Your task to perform on an android device: install app "Google Duo" Image 0: 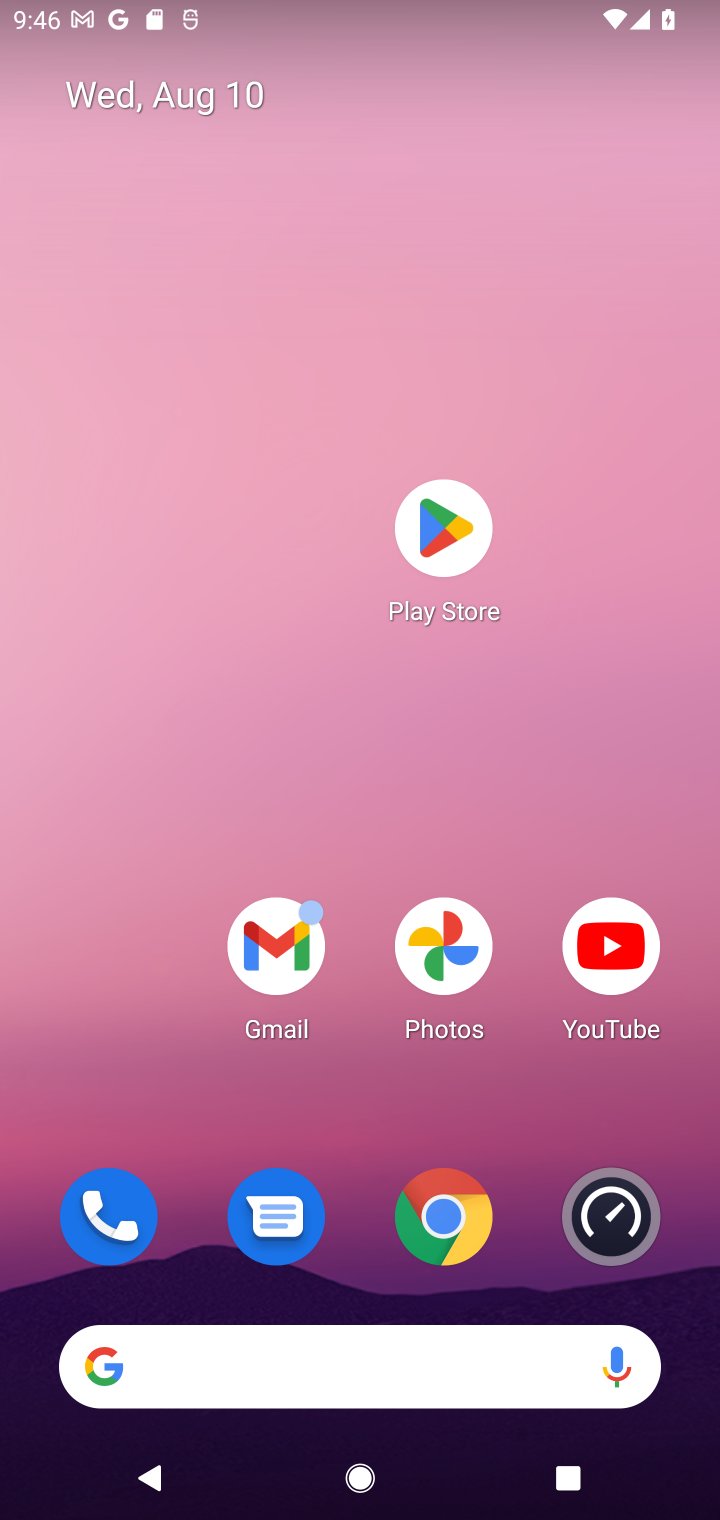
Step 0: click (438, 533)
Your task to perform on an android device: install app "Google Duo" Image 1: 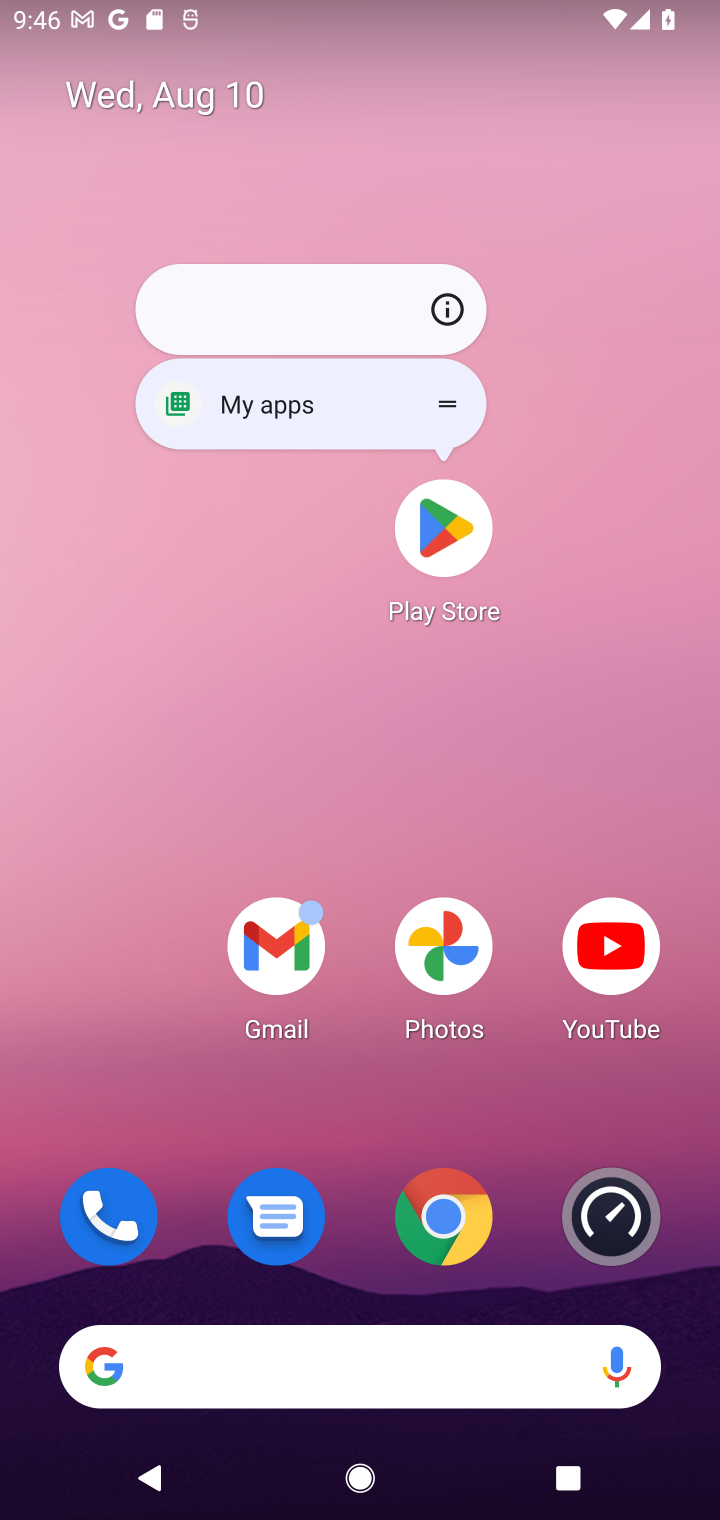
Step 1: click (453, 500)
Your task to perform on an android device: install app "Google Duo" Image 2: 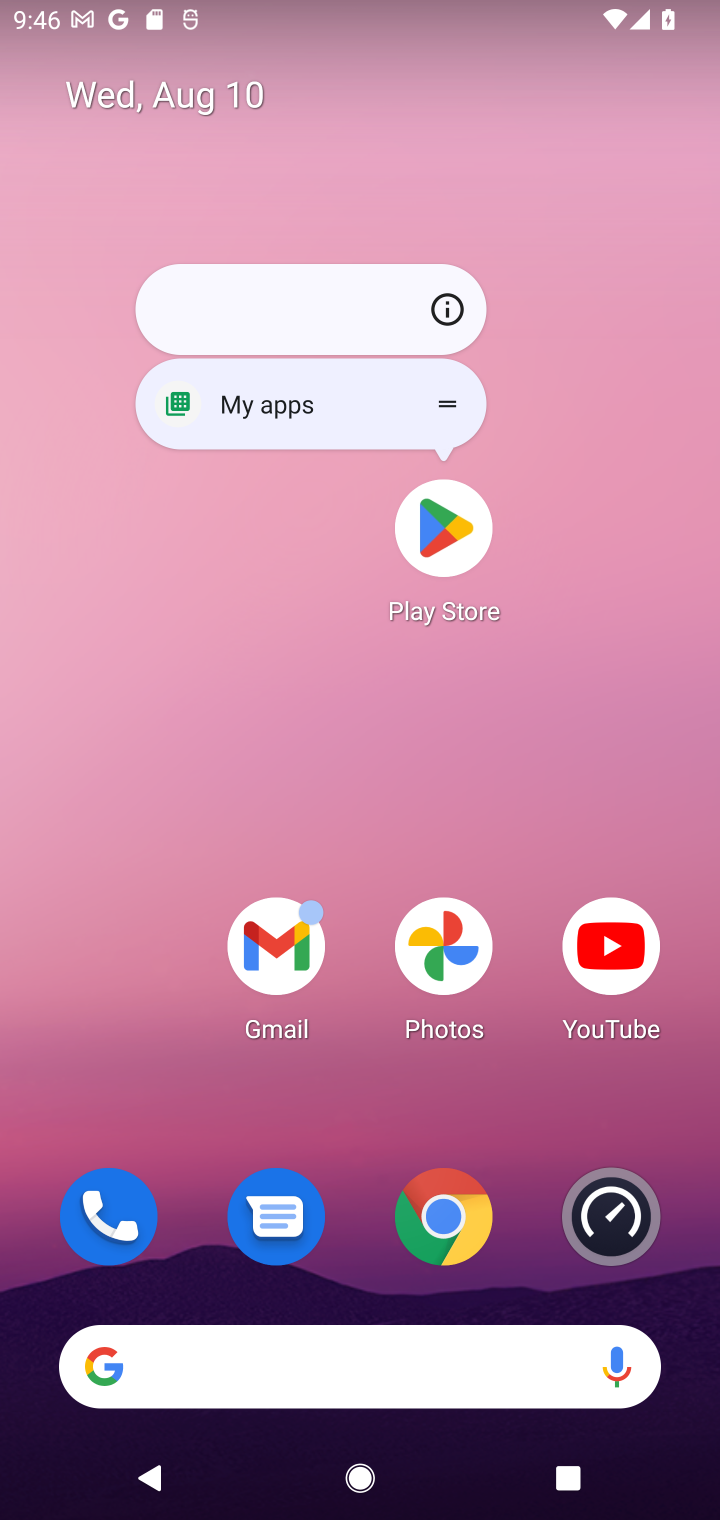
Step 2: click (453, 502)
Your task to perform on an android device: install app "Google Duo" Image 3: 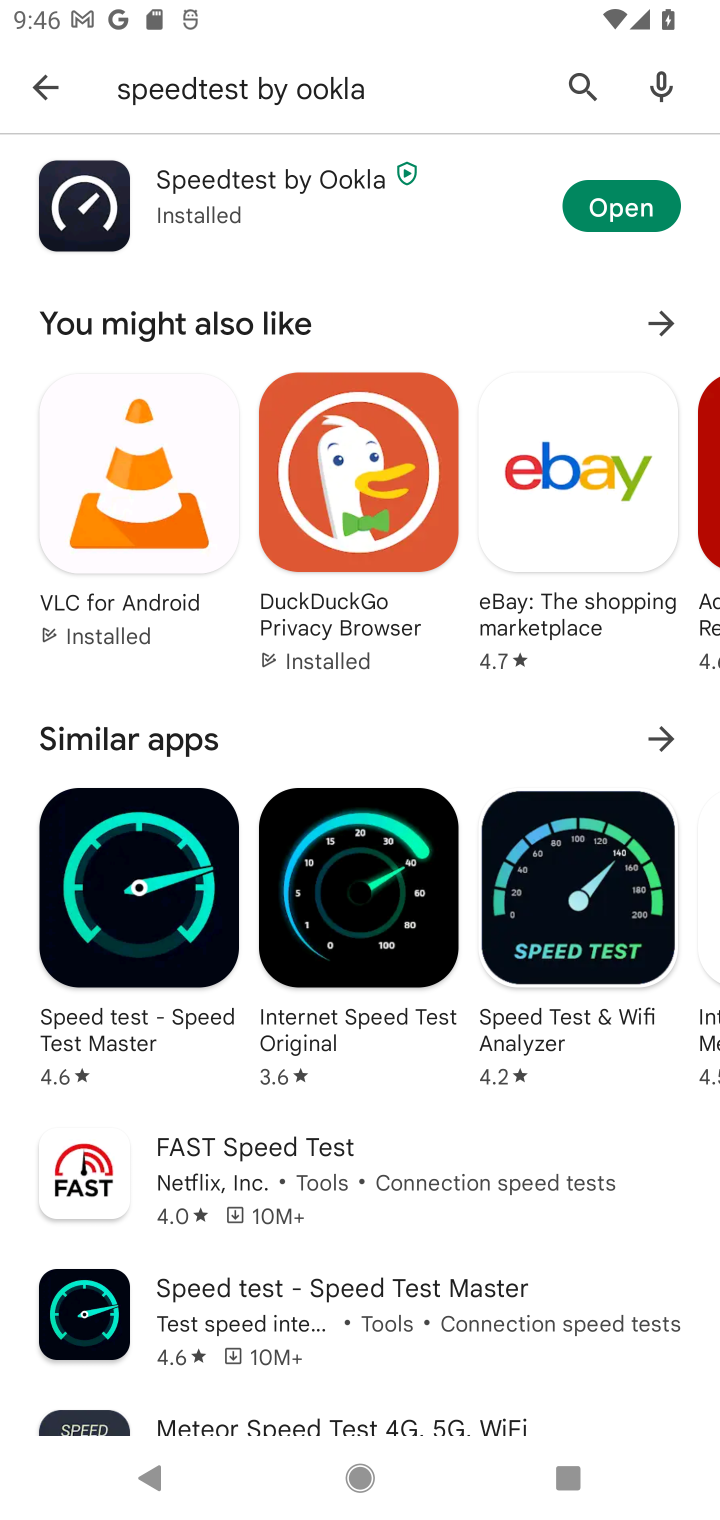
Step 3: click (576, 74)
Your task to perform on an android device: install app "Google Duo" Image 4: 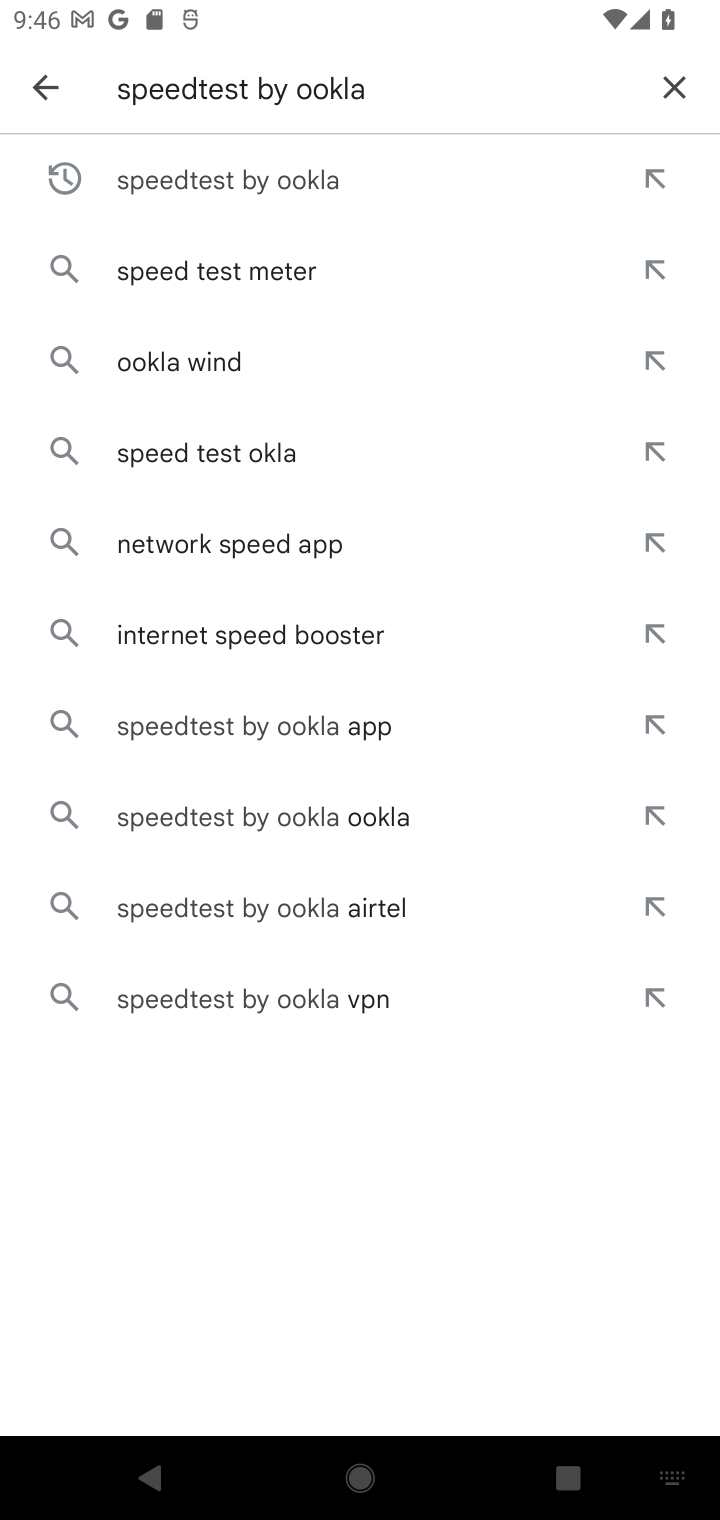
Step 4: click (669, 74)
Your task to perform on an android device: install app "Google Duo" Image 5: 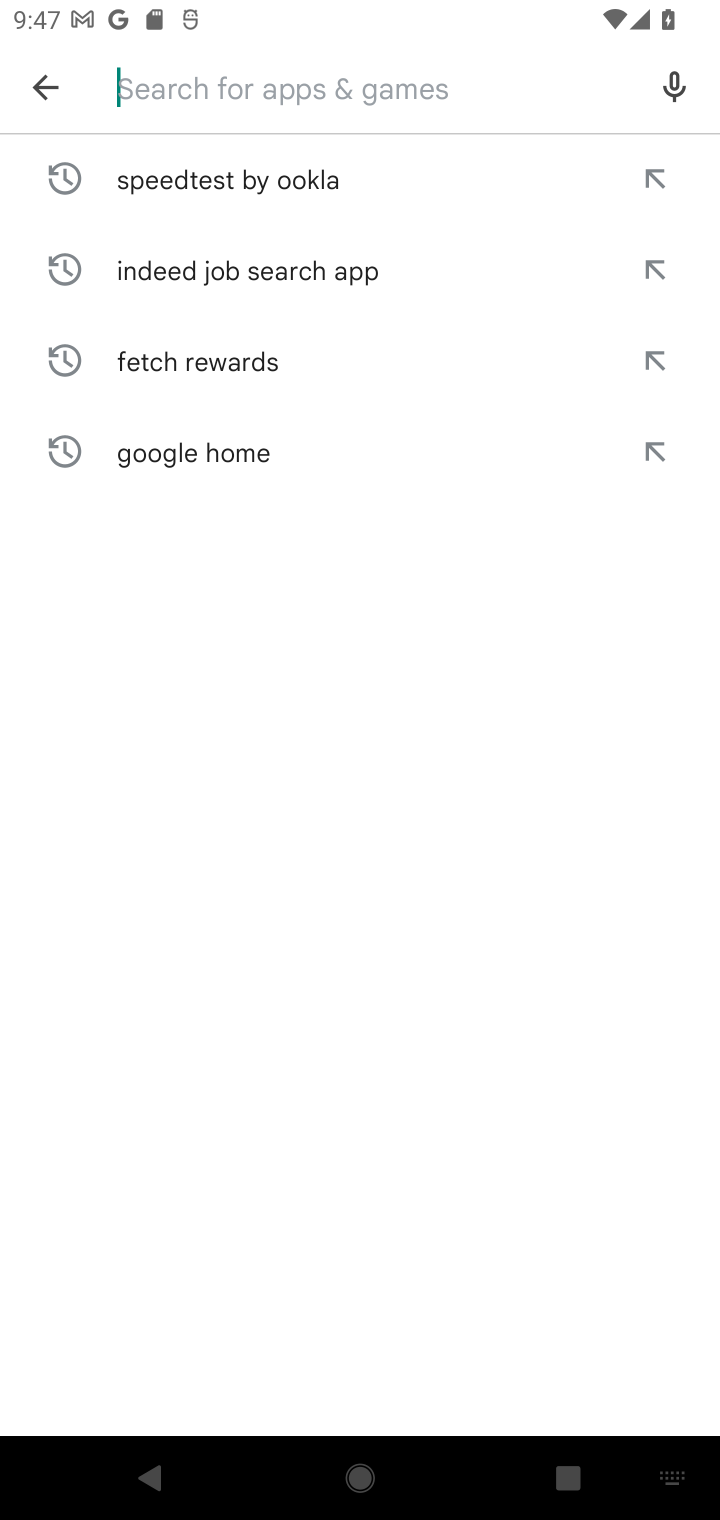
Step 5: type "Google Duo"
Your task to perform on an android device: install app "Google Duo" Image 6: 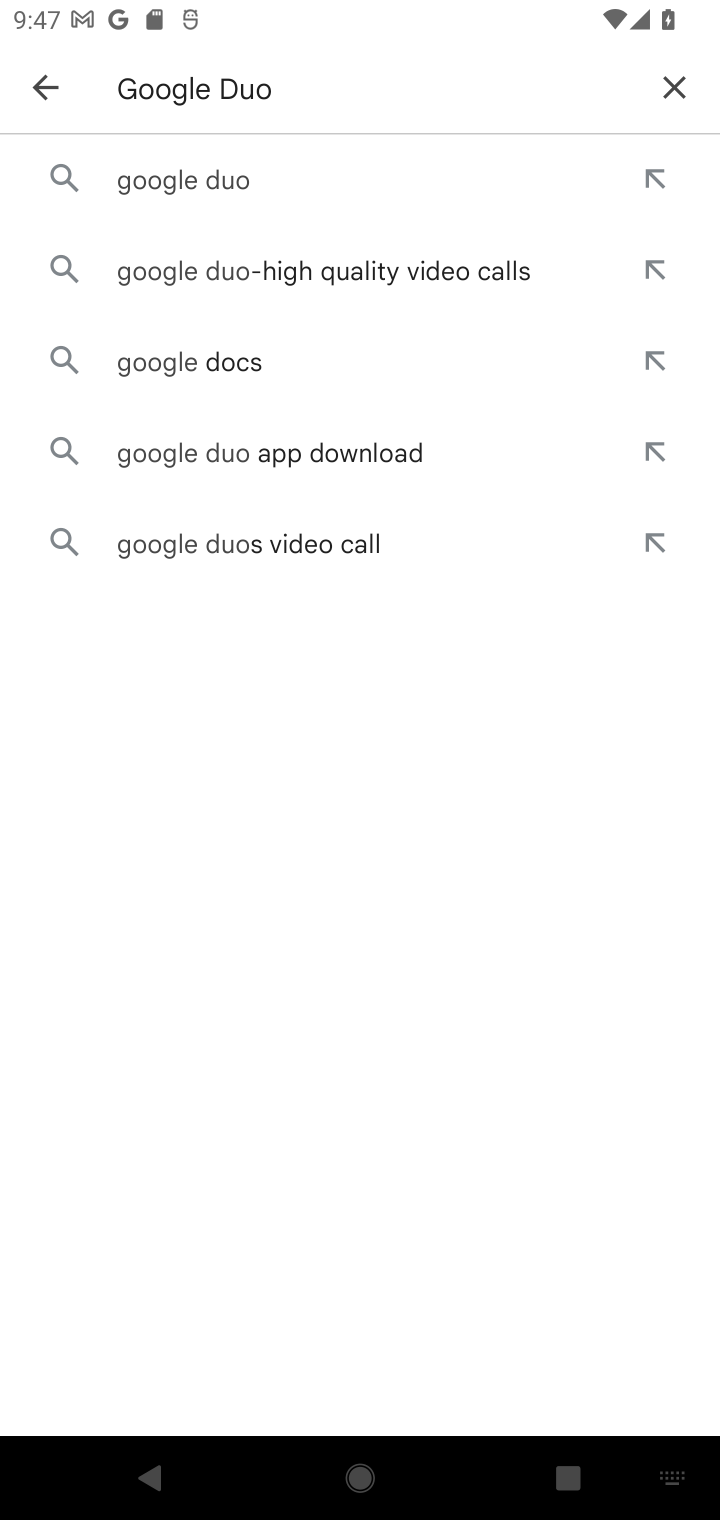
Step 6: click (240, 181)
Your task to perform on an android device: install app "Google Duo" Image 7: 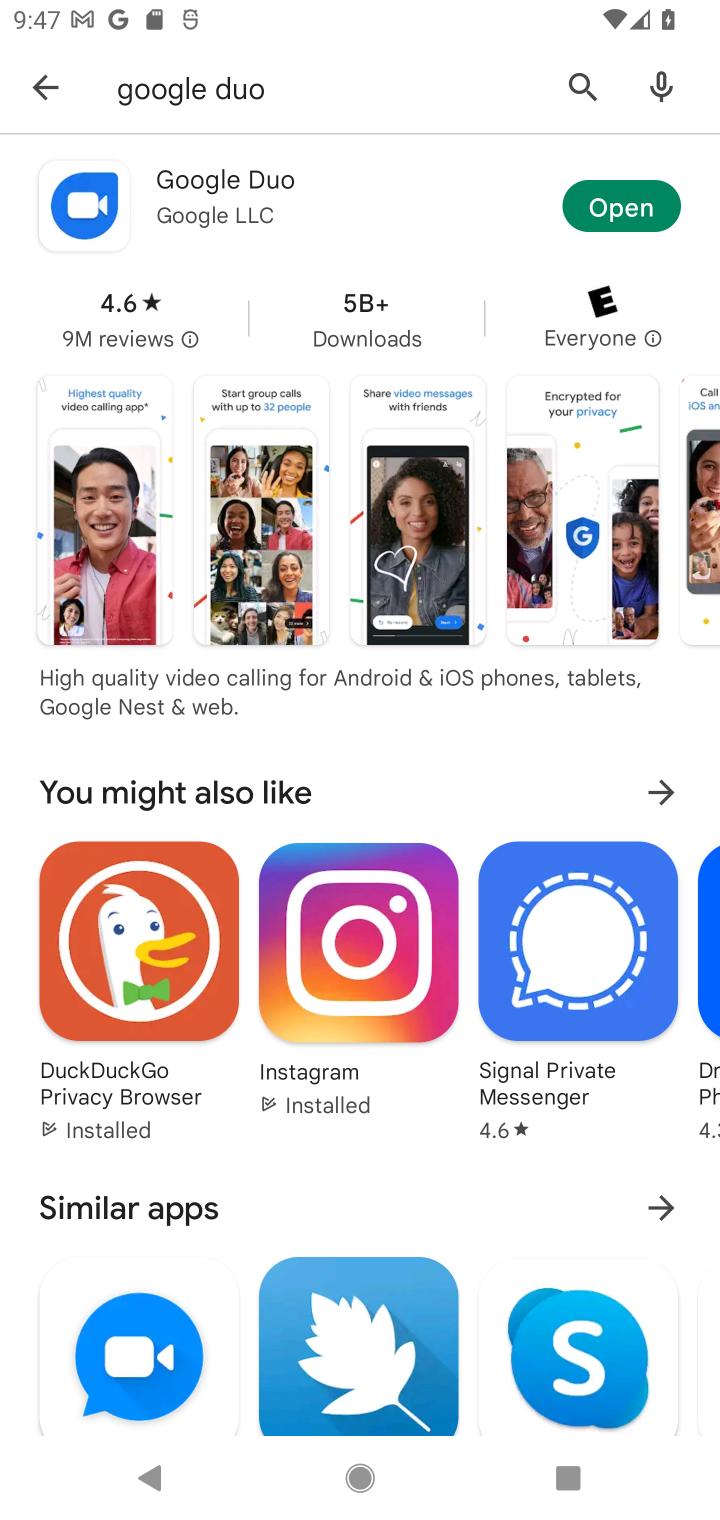
Step 7: task complete